Your task to perform on an android device: turn on javascript in the chrome app Image 0: 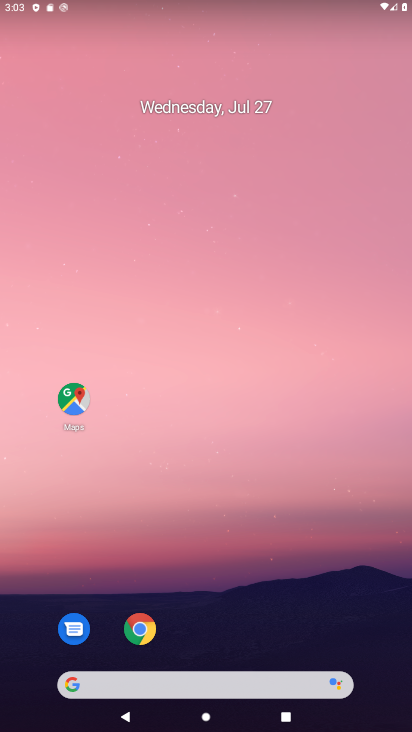
Step 0: click (142, 630)
Your task to perform on an android device: turn on javascript in the chrome app Image 1: 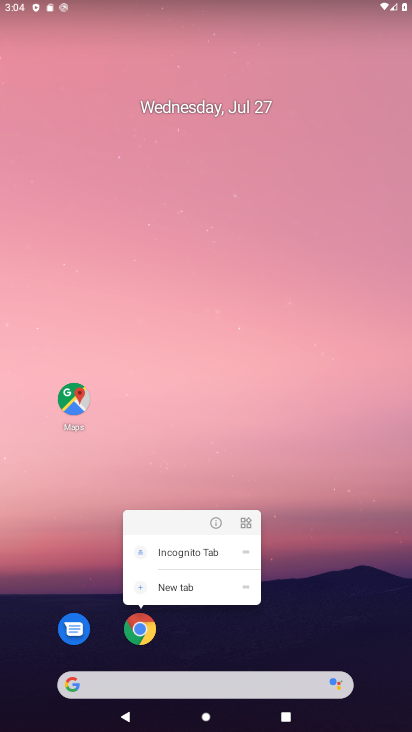
Step 1: click (139, 629)
Your task to perform on an android device: turn on javascript in the chrome app Image 2: 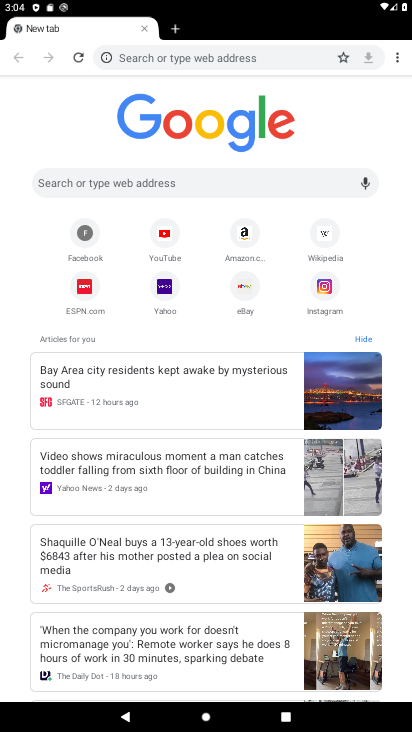
Step 2: click (393, 53)
Your task to perform on an android device: turn on javascript in the chrome app Image 3: 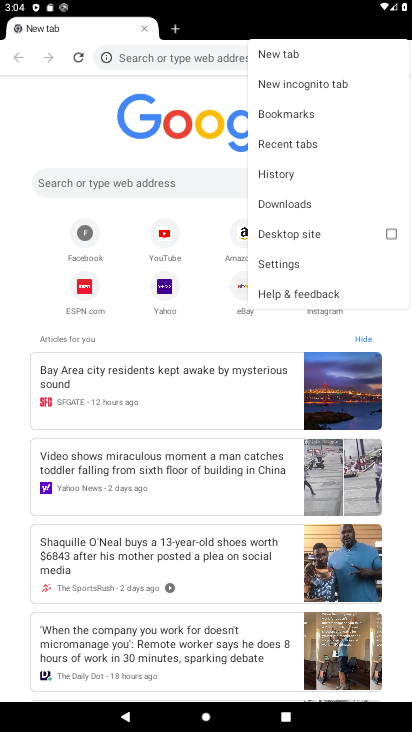
Step 3: click (304, 257)
Your task to perform on an android device: turn on javascript in the chrome app Image 4: 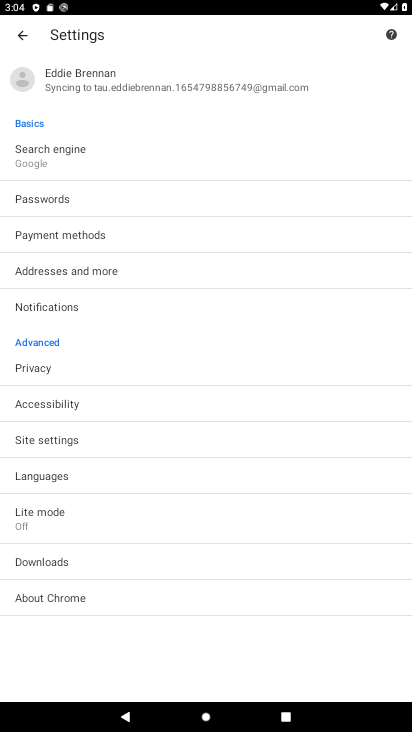
Step 4: click (82, 431)
Your task to perform on an android device: turn on javascript in the chrome app Image 5: 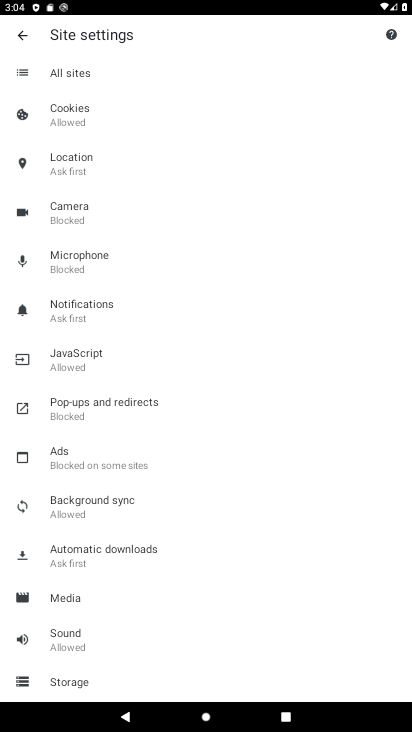
Step 5: click (86, 359)
Your task to perform on an android device: turn on javascript in the chrome app Image 6: 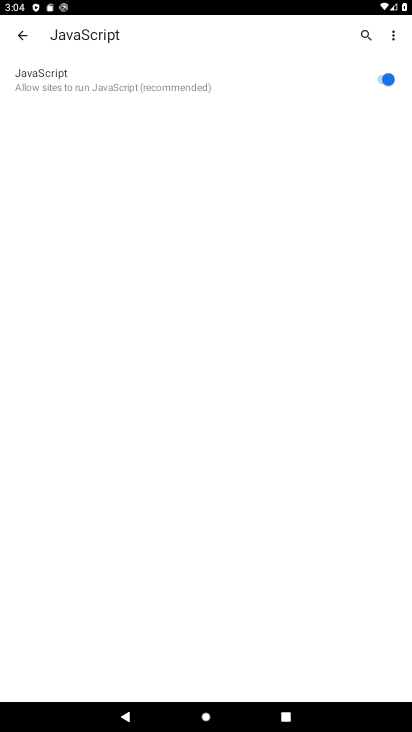
Step 6: task complete